Your task to perform on an android device: check storage Image 0: 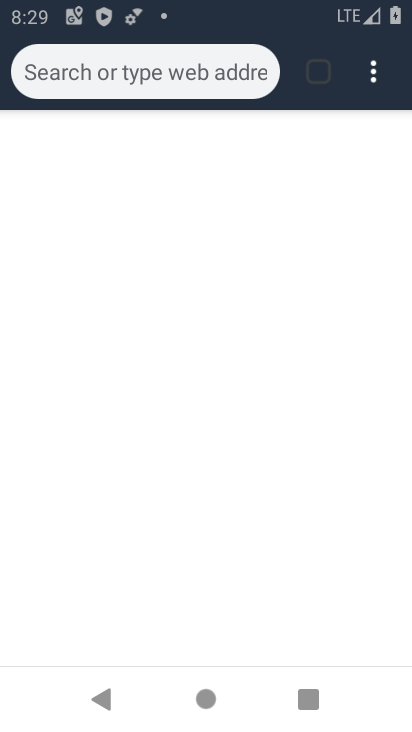
Step 0: press home button
Your task to perform on an android device: check storage Image 1: 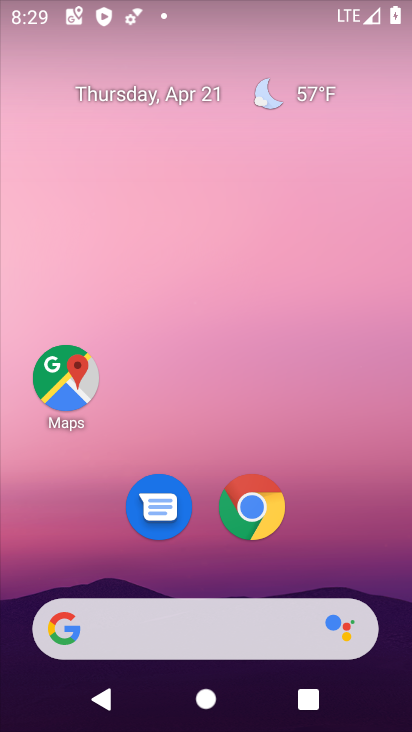
Step 1: drag from (336, 535) to (363, 1)
Your task to perform on an android device: check storage Image 2: 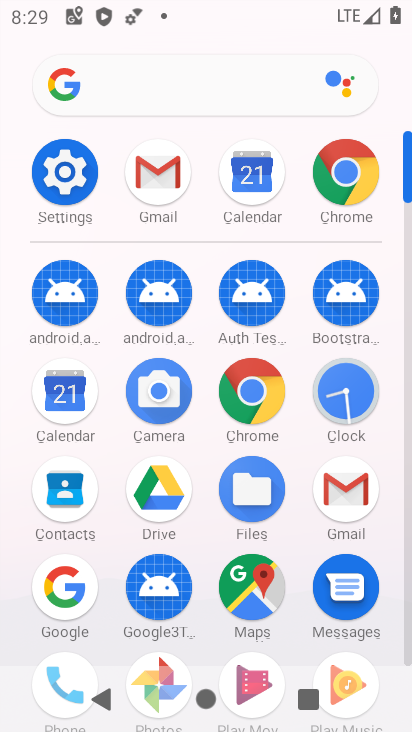
Step 2: click (75, 175)
Your task to perform on an android device: check storage Image 3: 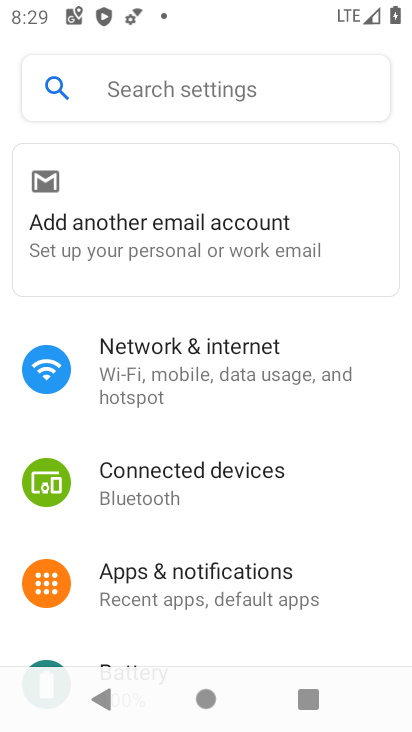
Step 3: drag from (228, 564) to (277, 116)
Your task to perform on an android device: check storage Image 4: 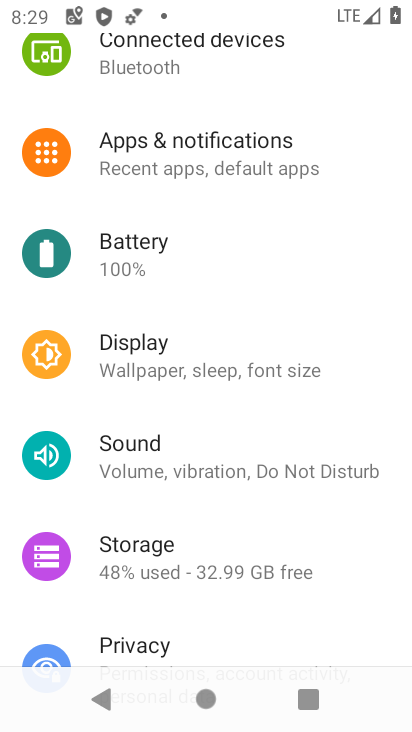
Step 4: click (173, 569)
Your task to perform on an android device: check storage Image 5: 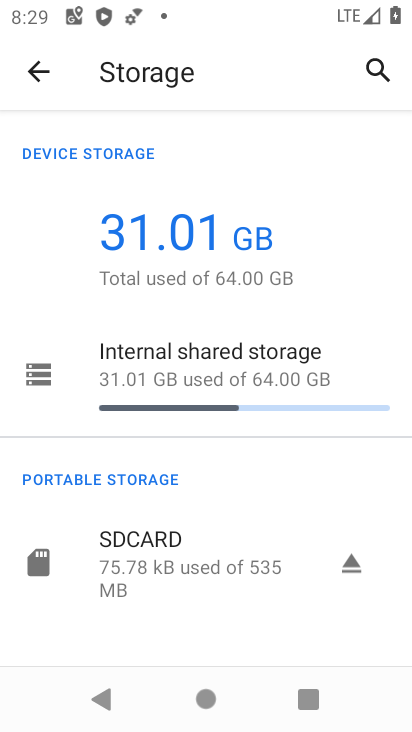
Step 5: task complete